Your task to perform on an android device: Open Android settings Image 0: 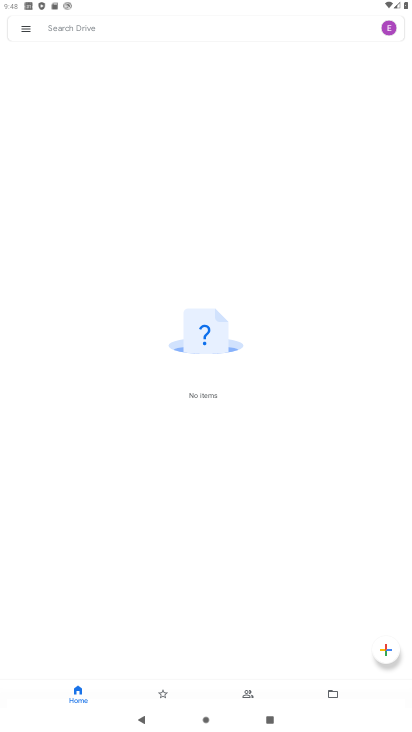
Step 0: press home button
Your task to perform on an android device: Open Android settings Image 1: 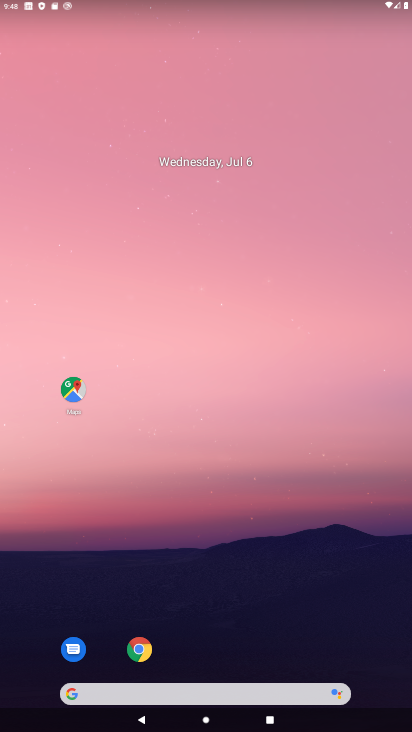
Step 1: drag from (254, 699) to (227, 195)
Your task to perform on an android device: Open Android settings Image 2: 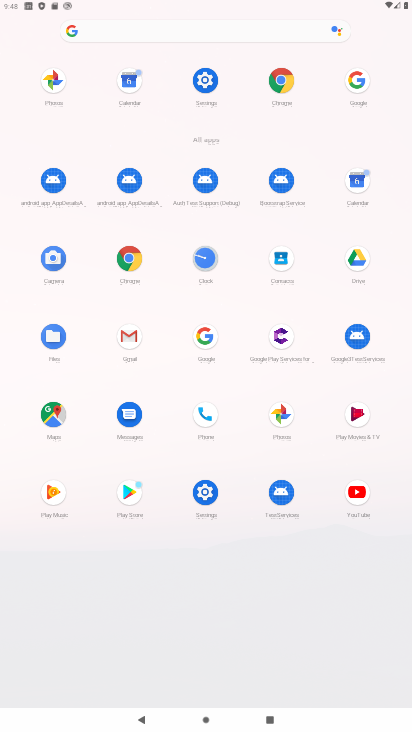
Step 2: click (210, 78)
Your task to perform on an android device: Open Android settings Image 3: 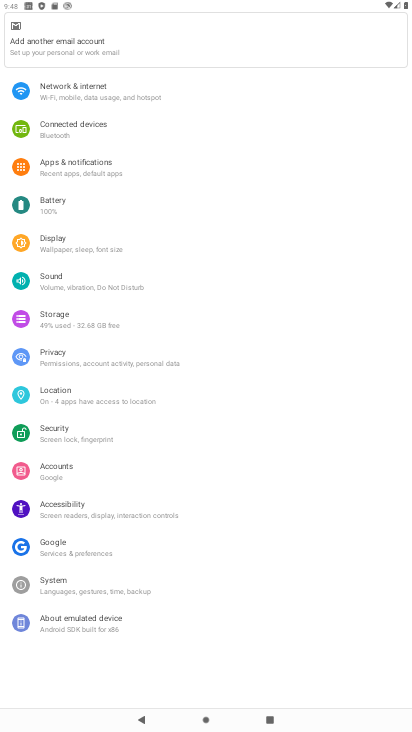
Step 3: click (117, 99)
Your task to perform on an android device: Open Android settings Image 4: 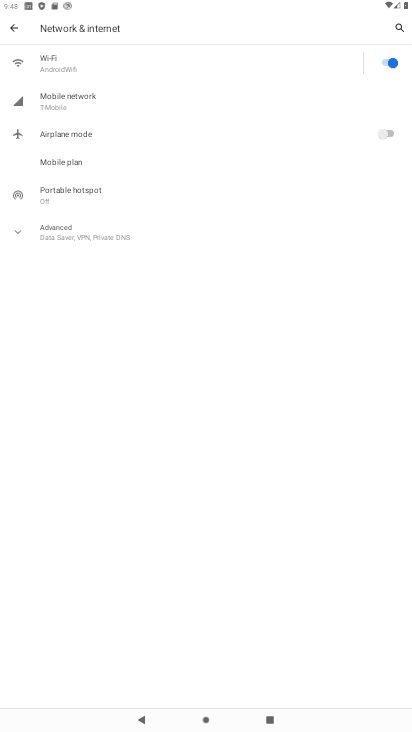
Step 4: task complete